Your task to perform on an android device: Clear all items from cart on amazon. Search for "razer thresher" on amazon, select the first entry, add it to the cart, then select checkout. Image 0: 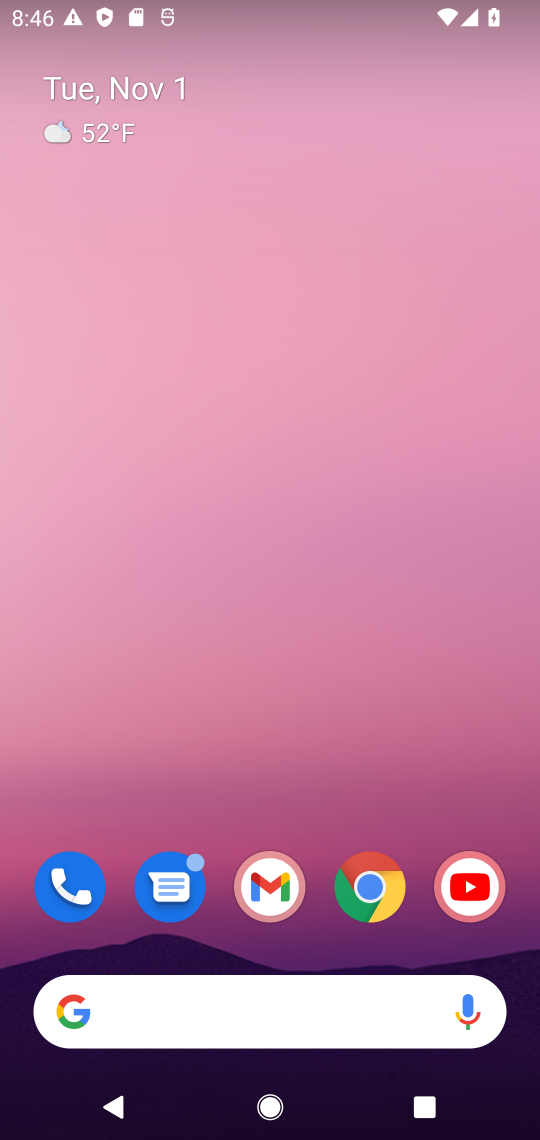
Step 0: drag from (159, 955) to (110, 212)
Your task to perform on an android device: Clear all items from cart on amazon. Search for "razer thresher" on amazon, select the first entry, add it to the cart, then select checkout. Image 1: 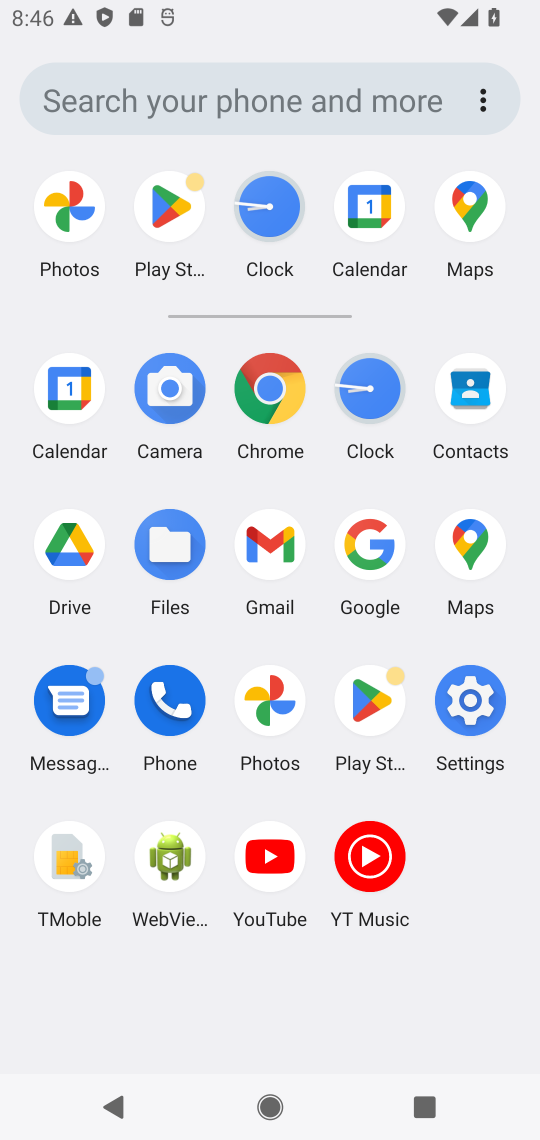
Step 1: click (369, 548)
Your task to perform on an android device: Clear all items from cart on amazon. Search for "razer thresher" on amazon, select the first entry, add it to the cart, then select checkout. Image 2: 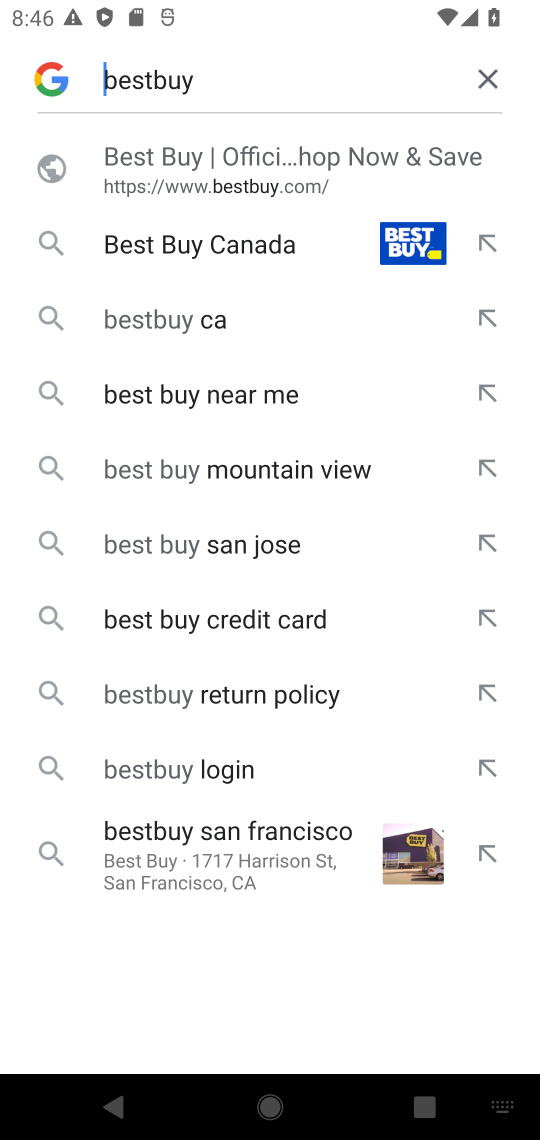
Step 2: click (502, 82)
Your task to perform on an android device: Clear all items from cart on amazon. Search for "razer thresher" on amazon, select the first entry, add it to the cart, then select checkout. Image 3: 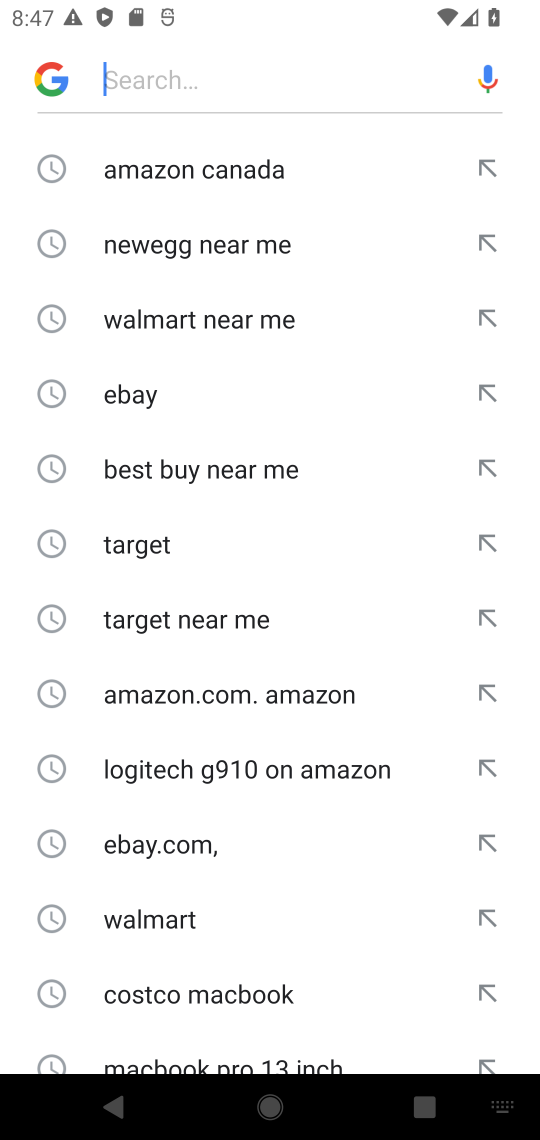
Step 3: click (179, 79)
Your task to perform on an android device: Clear all items from cart on amazon. Search for "razer thresher" on amazon, select the first entry, add it to the cart, then select checkout. Image 4: 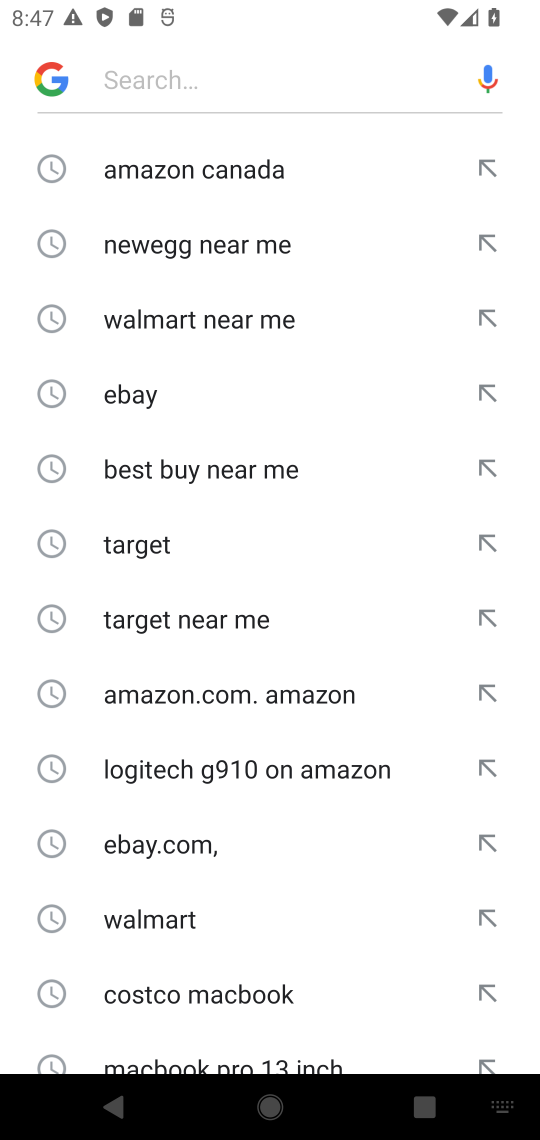
Step 4: type "amazon "
Your task to perform on an android device: Clear all items from cart on amazon. Search for "razer thresher" on amazon, select the first entry, add it to the cart, then select checkout. Image 5: 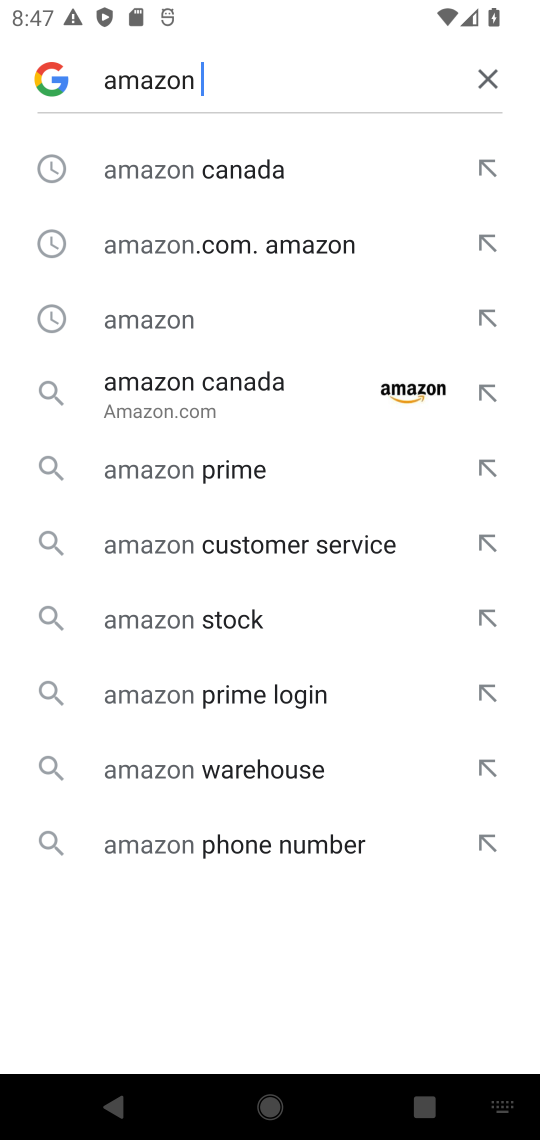
Step 5: click (136, 173)
Your task to perform on an android device: Clear all items from cart on amazon. Search for "razer thresher" on amazon, select the first entry, add it to the cart, then select checkout. Image 6: 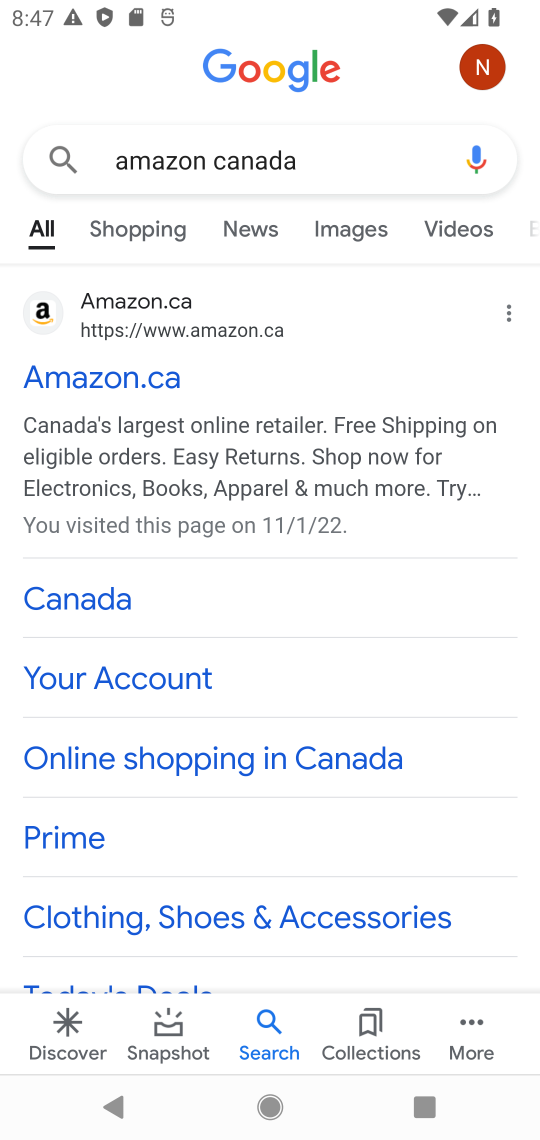
Step 6: click (36, 310)
Your task to perform on an android device: Clear all items from cart on amazon. Search for "razer thresher" on amazon, select the first entry, add it to the cart, then select checkout. Image 7: 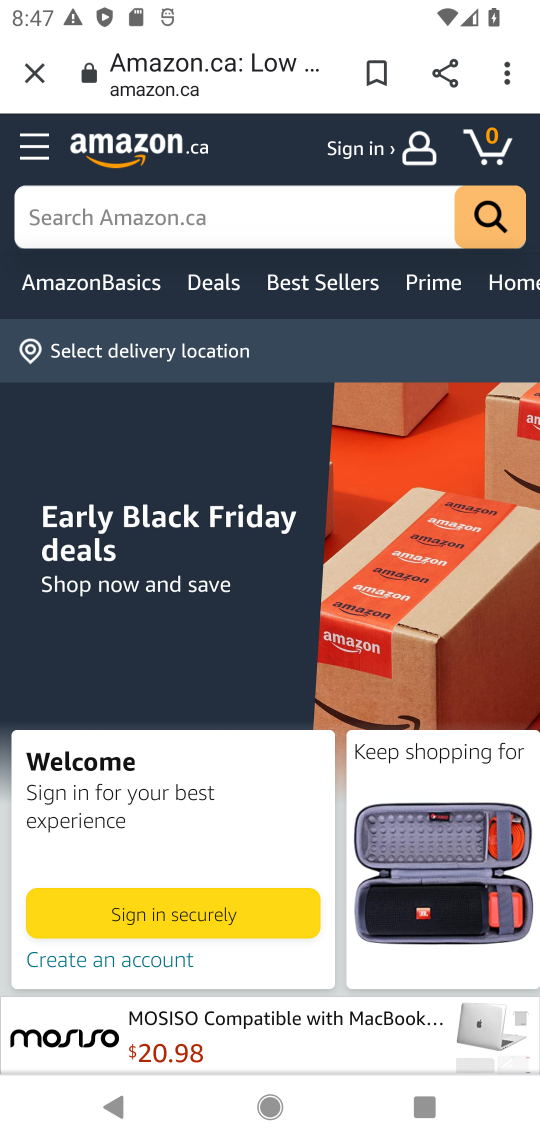
Step 7: click (197, 210)
Your task to perform on an android device: Clear all items from cart on amazon. Search for "razer thresher" on amazon, select the first entry, add it to the cart, then select checkout. Image 8: 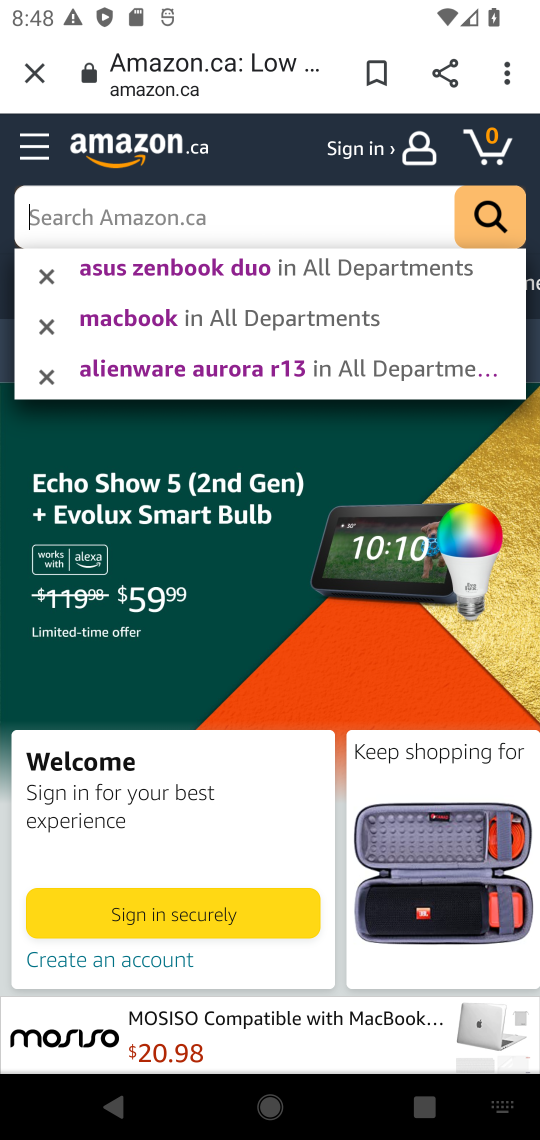
Step 8: click (273, 207)
Your task to perform on an android device: Clear all items from cart on amazon. Search for "razer thresher" on amazon, select the first entry, add it to the cart, then select checkout. Image 9: 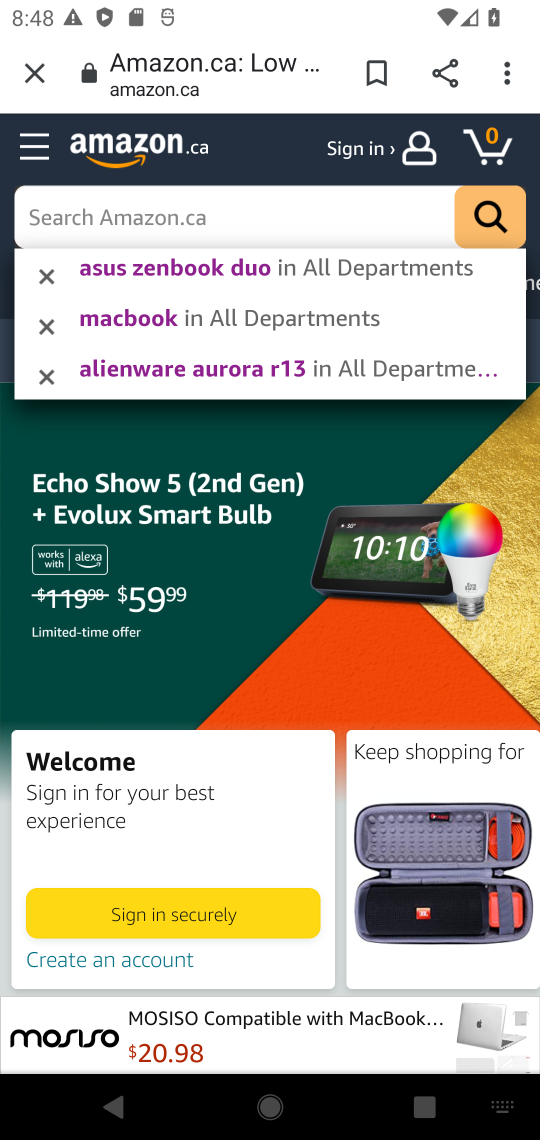
Step 9: type "razer thresher "
Your task to perform on an android device: Clear all items from cart on amazon. Search for "razer thresher" on amazon, select the first entry, add it to the cart, then select checkout. Image 10: 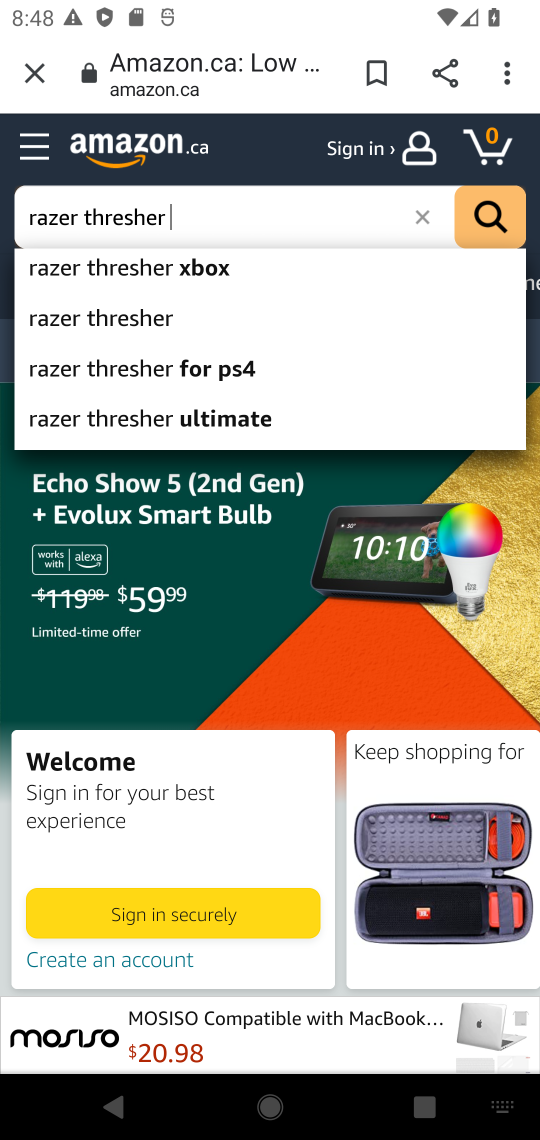
Step 10: click (109, 262)
Your task to perform on an android device: Clear all items from cart on amazon. Search for "razer thresher" on amazon, select the first entry, add it to the cart, then select checkout. Image 11: 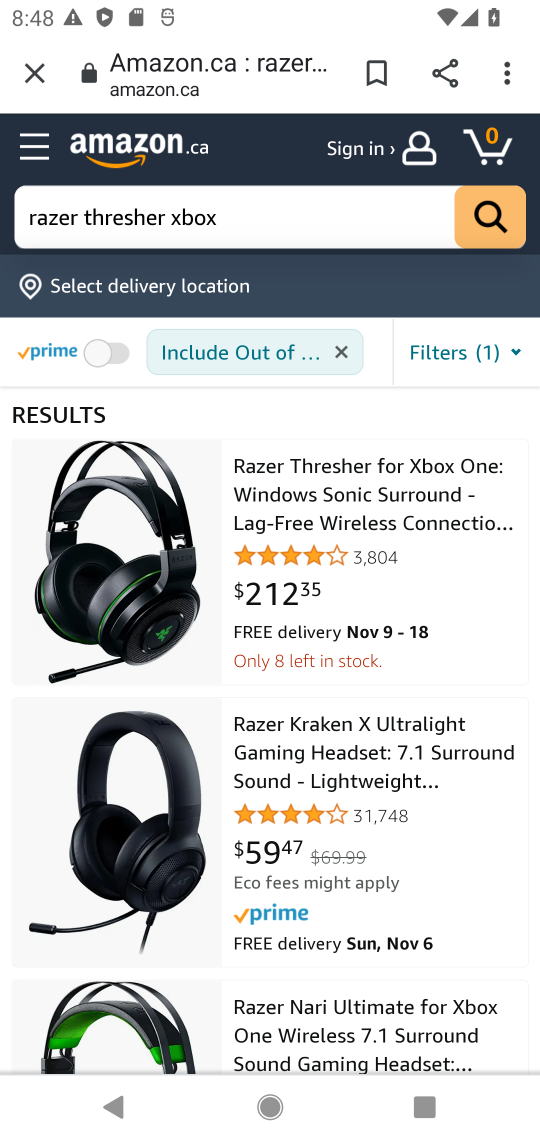
Step 11: click (334, 481)
Your task to perform on an android device: Clear all items from cart on amazon. Search for "razer thresher" on amazon, select the first entry, add it to the cart, then select checkout. Image 12: 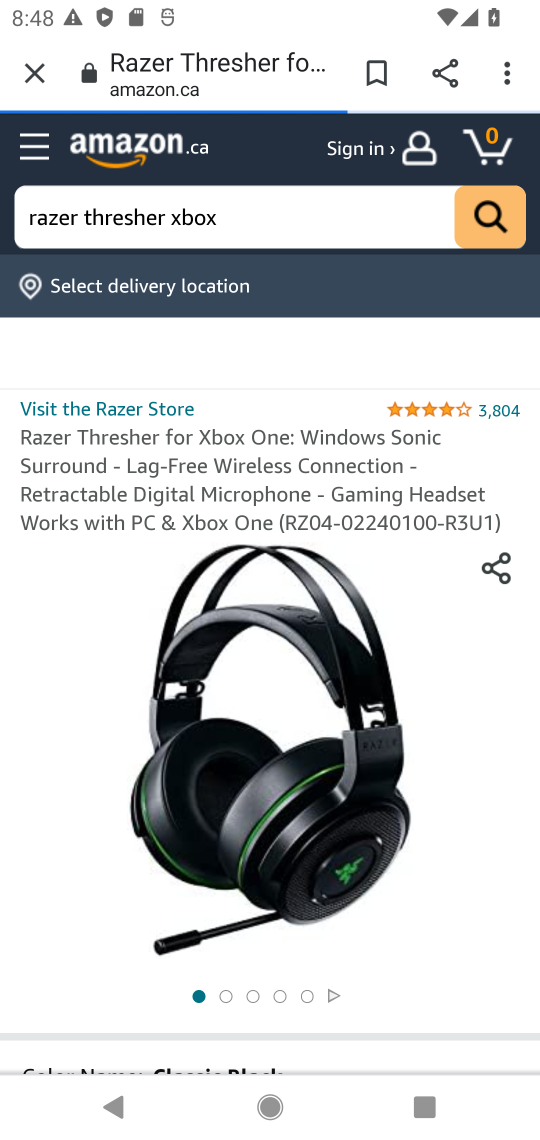
Step 12: drag from (239, 806) to (266, 280)
Your task to perform on an android device: Clear all items from cart on amazon. Search for "razer thresher" on amazon, select the first entry, add it to the cart, then select checkout. Image 13: 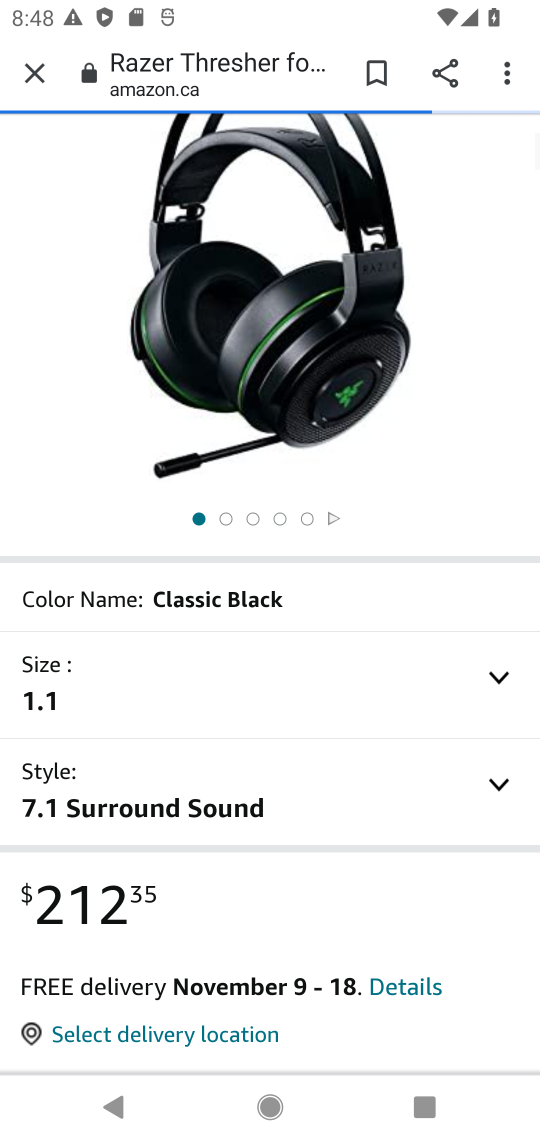
Step 13: drag from (225, 909) to (290, 332)
Your task to perform on an android device: Clear all items from cart on amazon. Search for "razer thresher" on amazon, select the first entry, add it to the cart, then select checkout. Image 14: 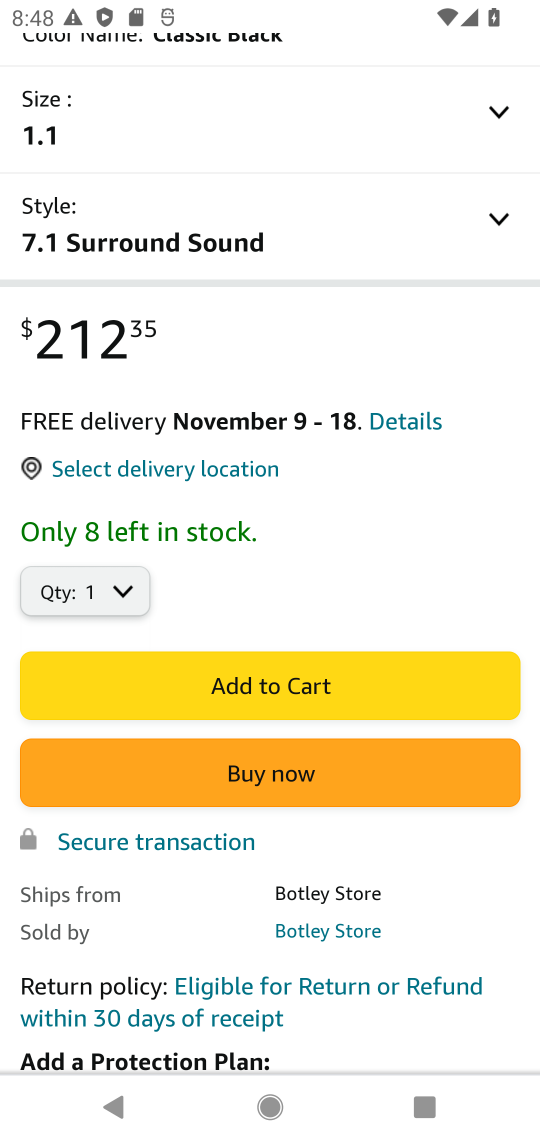
Step 14: click (284, 669)
Your task to perform on an android device: Clear all items from cart on amazon. Search for "razer thresher" on amazon, select the first entry, add it to the cart, then select checkout. Image 15: 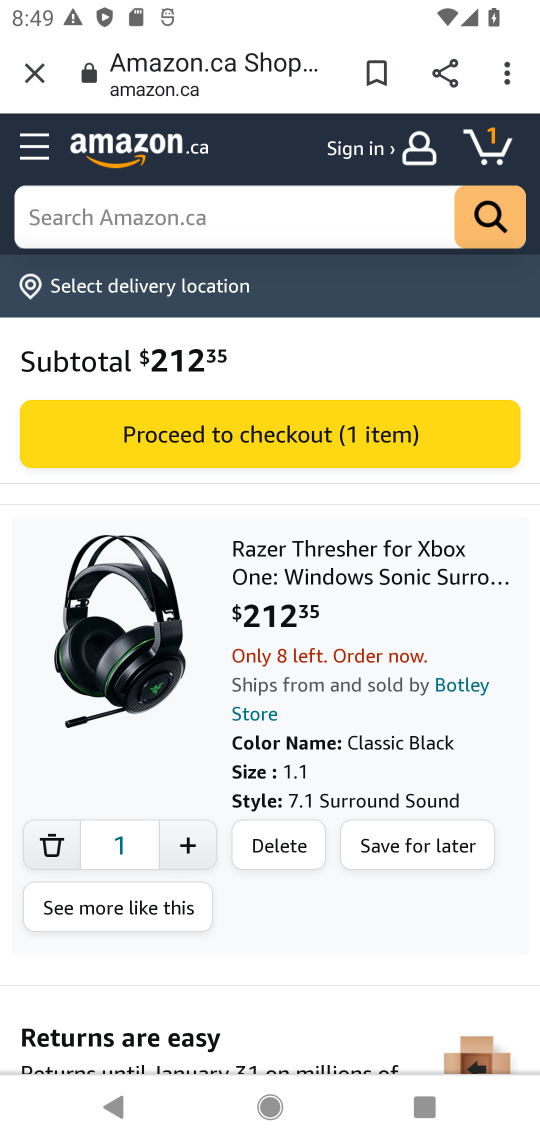
Step 15: task complete